Your task to perform on an android device: What's the weather going to be tomorrow? Image 0: 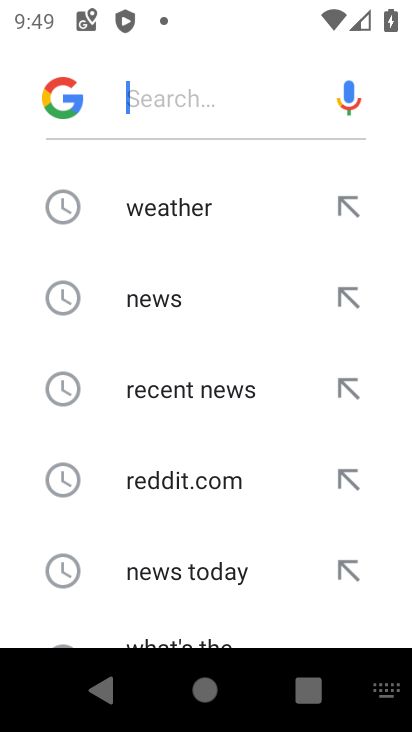
Step 0: press home button
Your task to perform on an android device: What's the weather going to be tomorrow? Image 1: 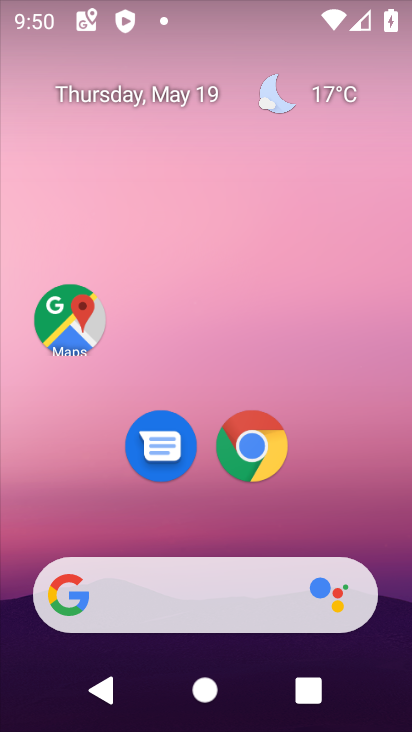
Step 1: click (304, 106)
Your task to perform on an android device: What's the weather going to be tomorrow? Image 2: 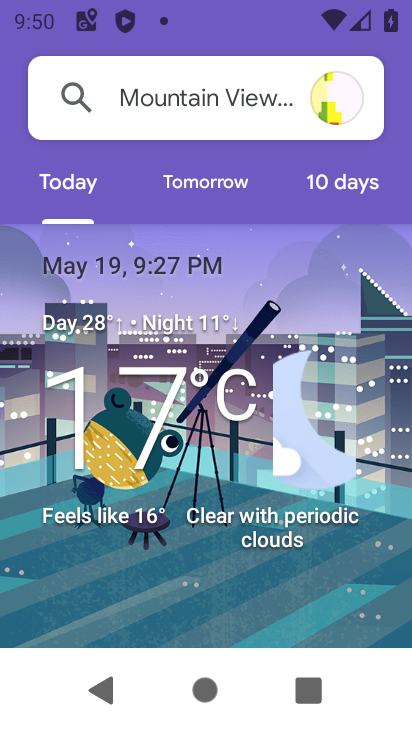
Step 2: click (183, 195)
Your task to perform on an android device: What's the weather going to be tomorrow? Image 3: 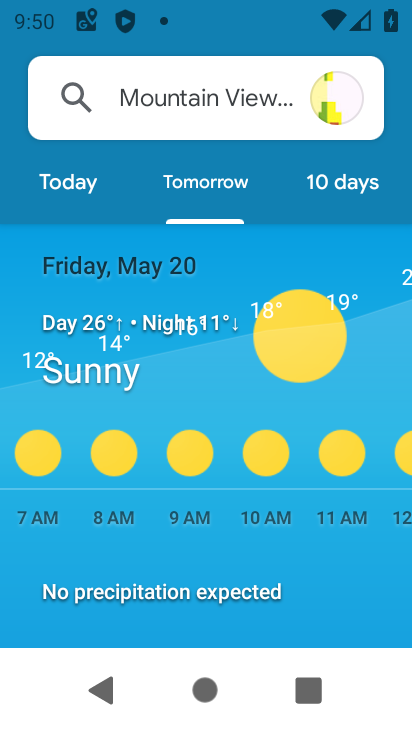
Step 3: task complete